Your task to perform on an android device: Open notification settings Image 0: 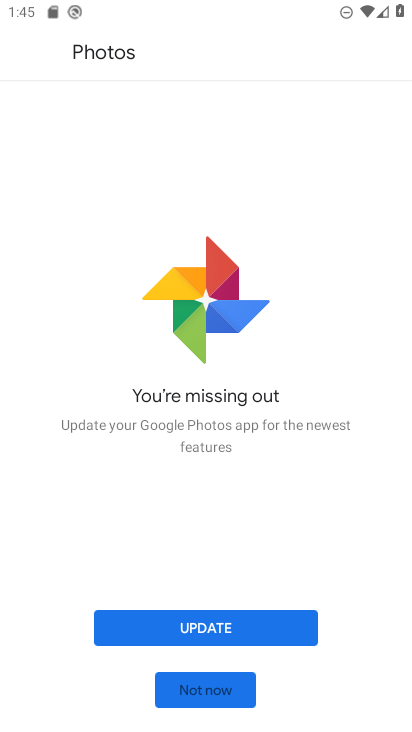
Step 0: press home button
Your task to perform on an android device: Open notification settings Image 1: 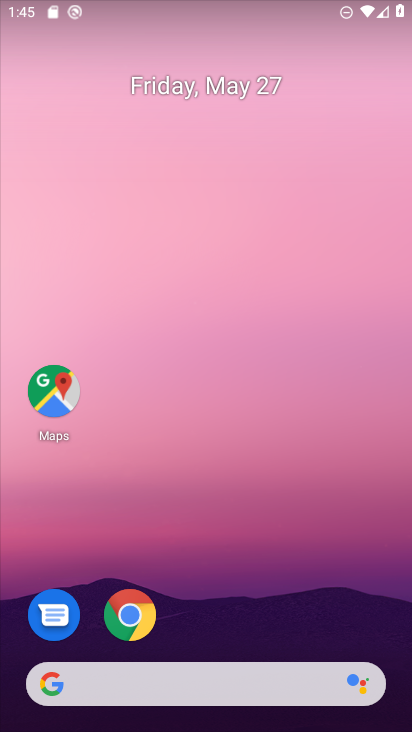
Step 1: drag from (224, 600) to (172, 280)
Your task to perform on an android device: Open notification settings Image 2: 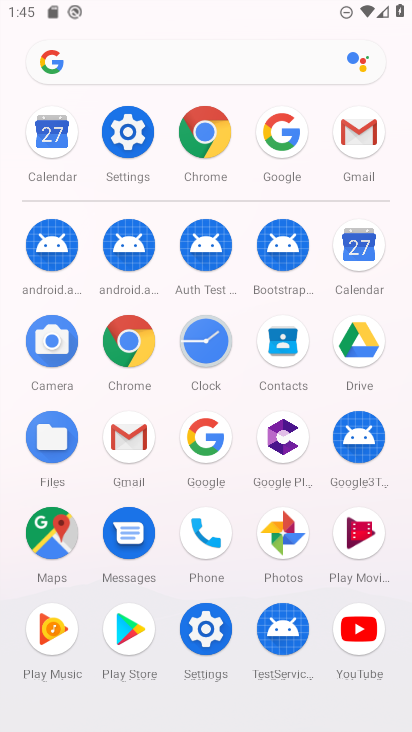
Step 2: click (220, 633)
Your task to perform on an android device: Open notification settings Image 3: 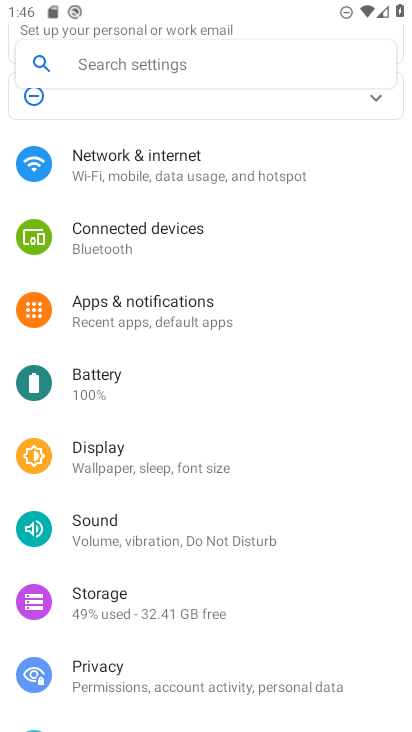
Step 3: click (170, 310)
Your task to perform on an android device: Open notification settings Image 4: 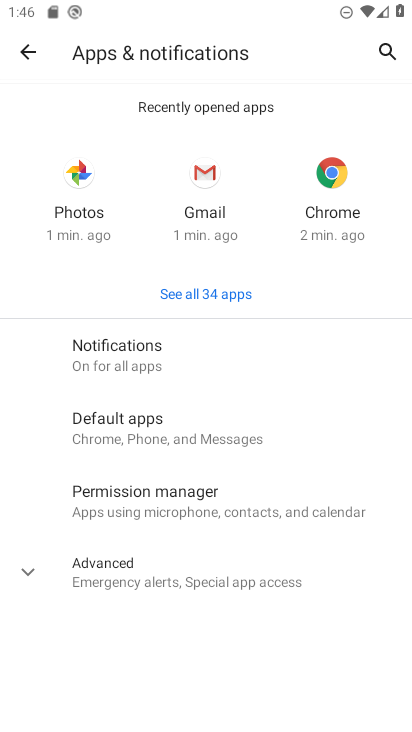
Step 4: click (158, 352)
Your task to perform on an android device: Open notification settings Image 5: 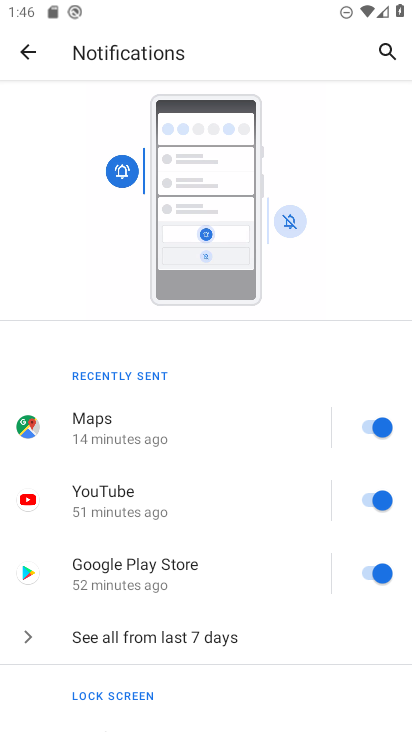
Step 5: task complete